Your task to perform on an android device: Do I have any events this weekend? Image 0: 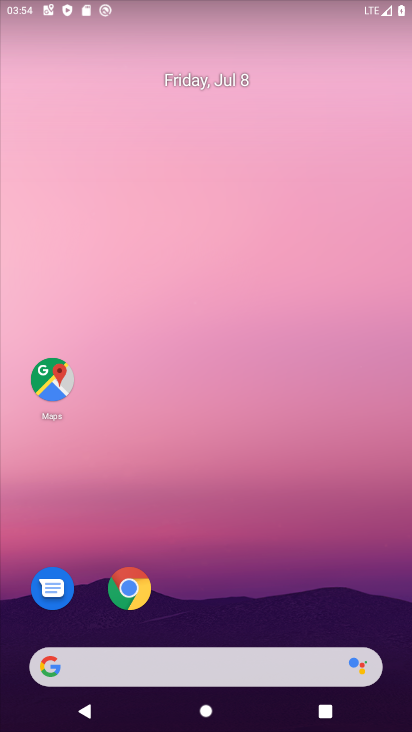
Step 0: drag from (205, 527) to (159, 117)
Your task to perform on an android device: Do I have any events this weekend? Image 1: 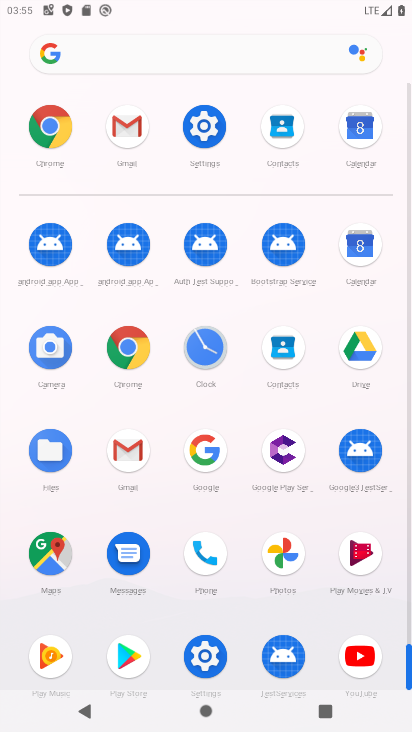
Step 1: click (354, 255)
Your task to perform on an android device: Do I have any events this weekend? Image 2: 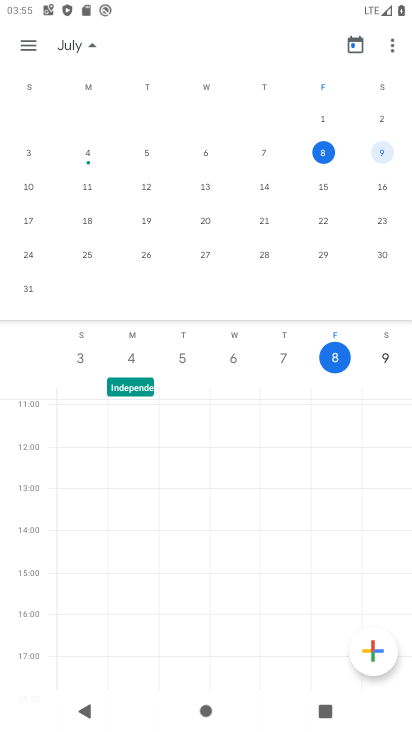
Step 2: press home button
Your task to perform on an android device: Do I have any events this weekend? Image 3: 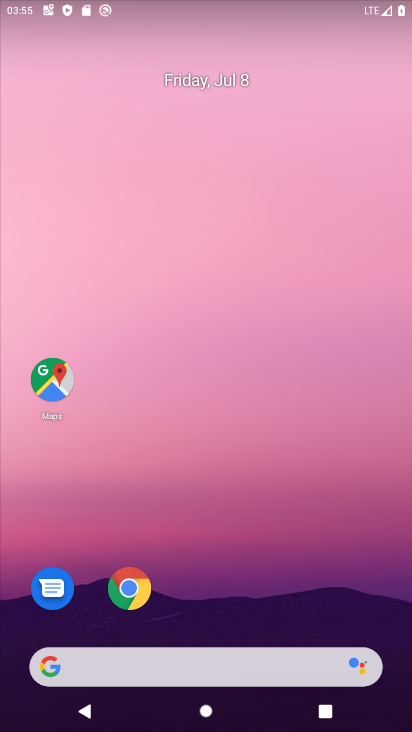
Step 3: drag from (248, 13) to (186, 16)
Your task to perform on an android device: Do I have any events this weekend? Image 4: 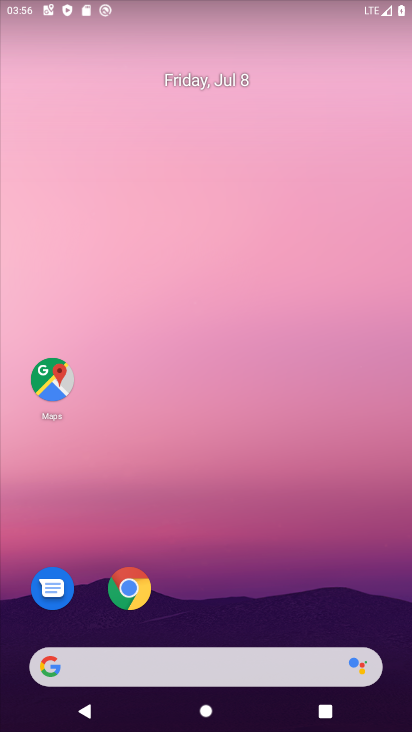
Step 4: drag from (235, 546) to (338, 175)
Your task to perform on an android device: Do I have any events this weekend? Image 5: 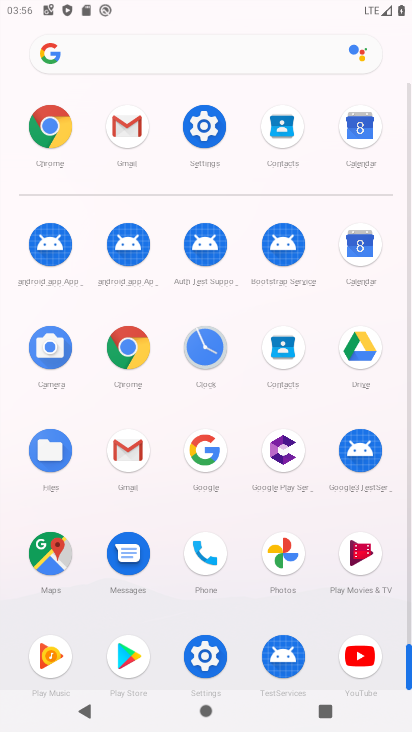
Step 5: click (371, 239)
Your task to perform on an android device: Do I have any events this weekend? Image 6: 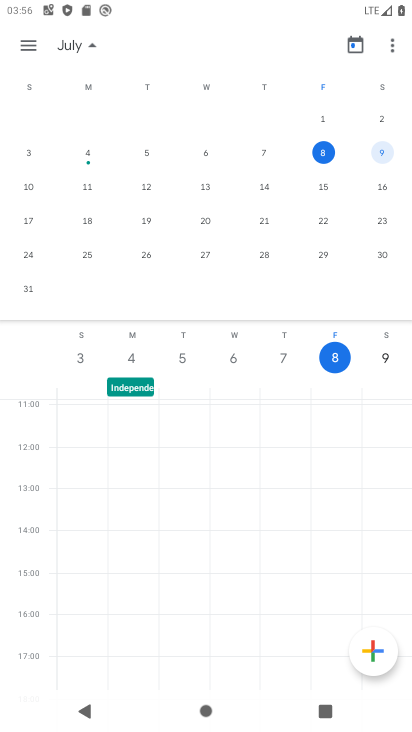
Step 6: task complete